Your task to perform on an android device: manage bookmarks in the chrome app Image 0: 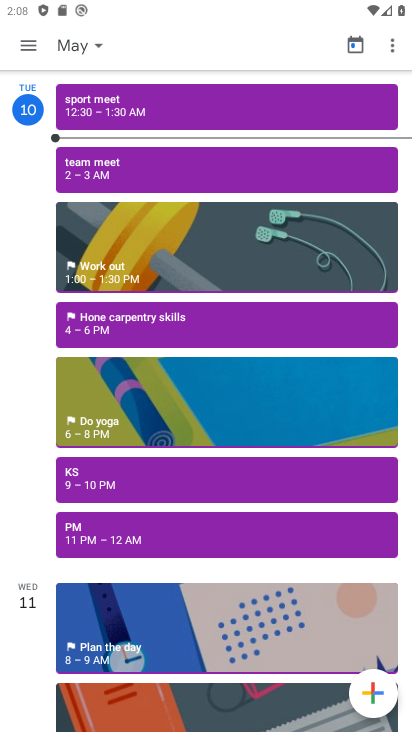
Step 0: press home button
Your task to perform on an android device: manage bookmarks in the chrome app Image 1: 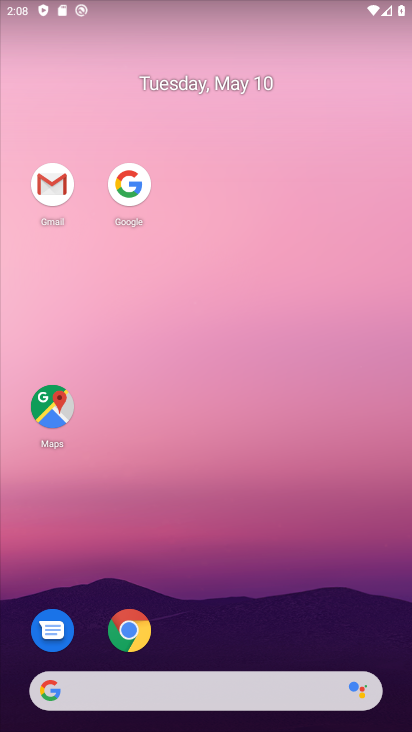
Step 1: click (134, 630)
Your task to perform on an android device: manage bookmarks in the chrome app Image 2: 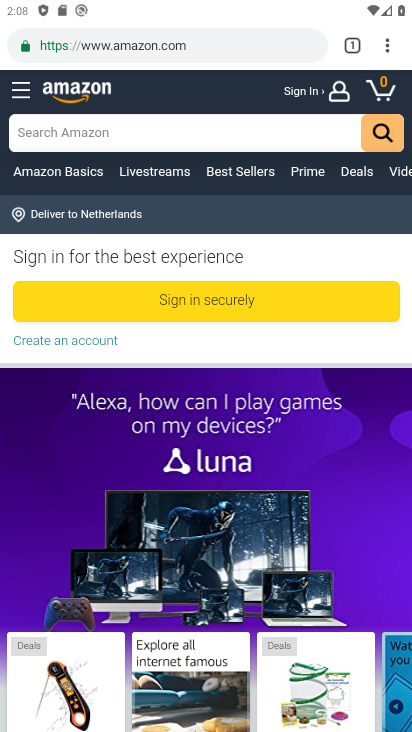
Step 2: click (394, 47)
Your task to perform on an android device: manage bookmarks in the chrome app Image 3: 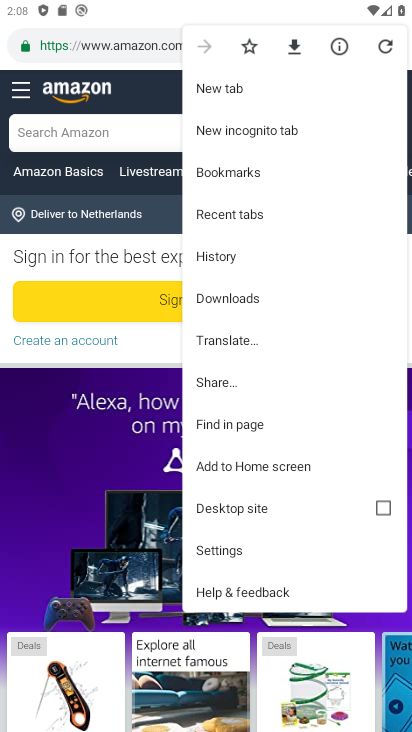
Step 3: click (282, 171)
Your task to perform on an android device: manage bookmarks in the chrome app Image 4: 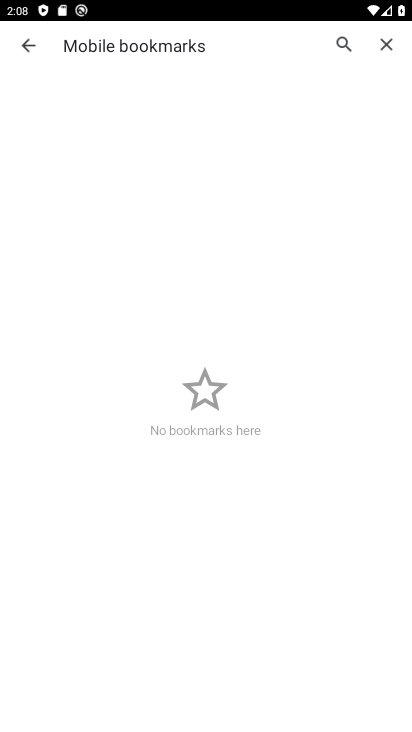
Step 4: task complete